Your task to perform on an android device: snooze an email in the gmail app Image 0: 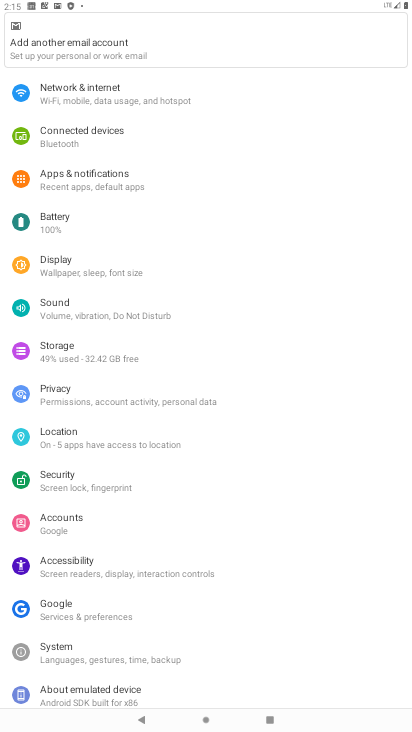
Step 0: press home button
Your task to perform on an android device: snooze an email in the gmail app Image 1: 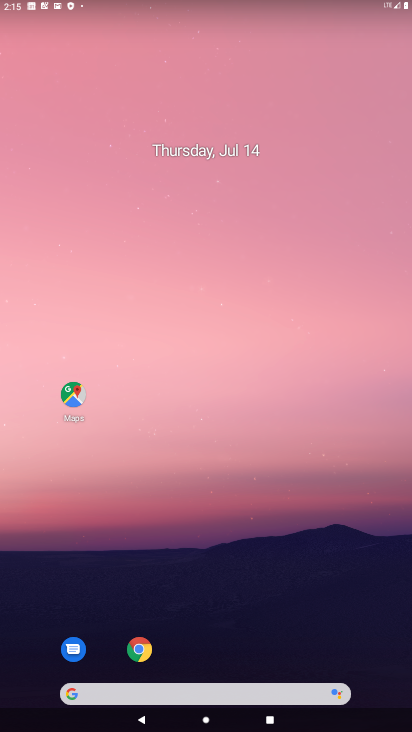
Step 1: drag from (379, 670) to (165, 17)
Your task to perform on an android device: snooze an email in the gmail app Image 2: 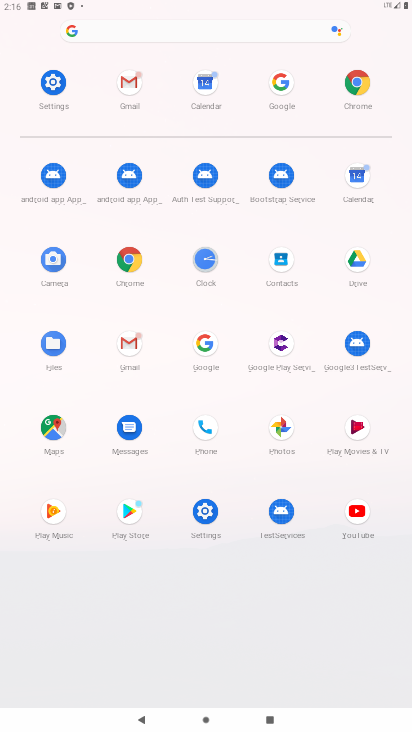
Step 2: click (136, 338)
Your task to perform on an android device: snooze an email in the gmail app Image 3: 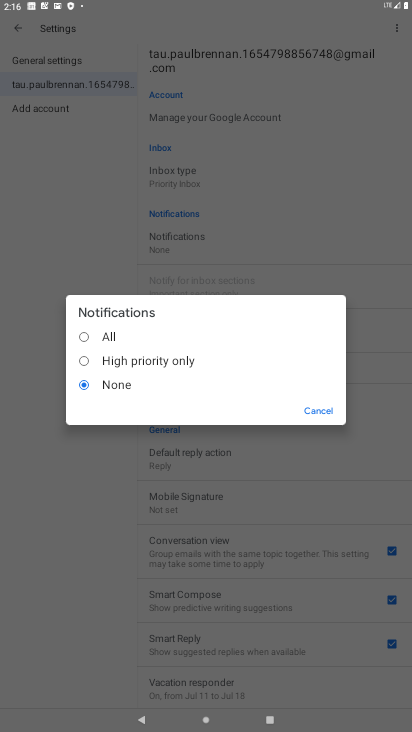
Step 3: click (304, 407)
Your task to perform on an android device: snooze an email in the gmail app Image 4: 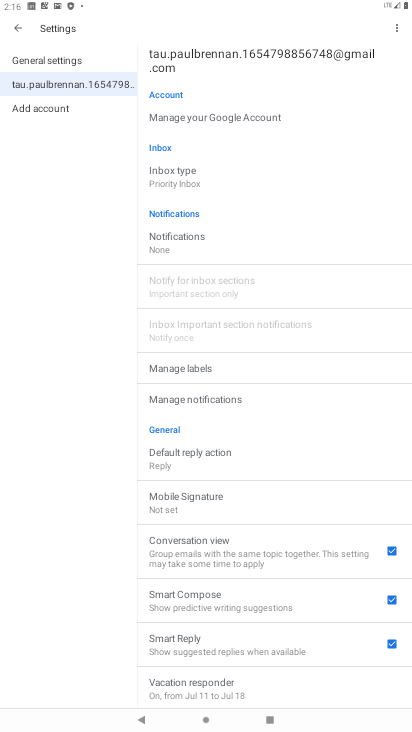
Step 4: press back button
Your task to perform on an android device: snooze an email in the gmail app Image 5: 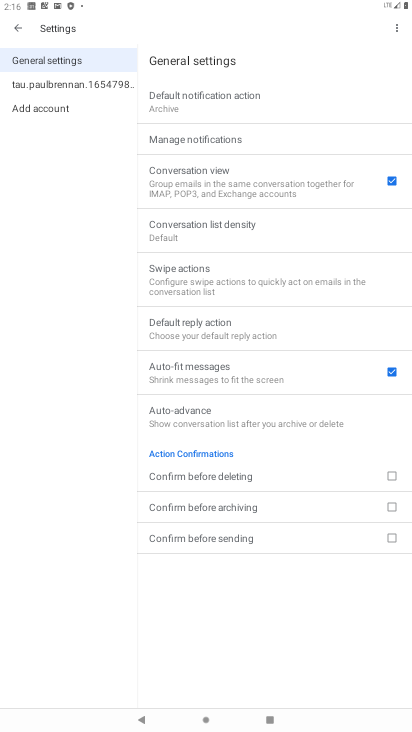
Step 5: click (15, 24)
Your task to perform on an android device: snooze an email in the gmail app Image 6: 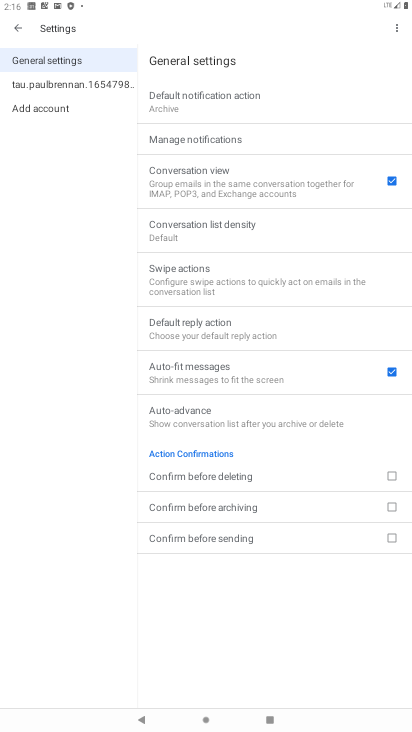
Step 6: click (13, 19)
Your task to perform on an android device: snooze an email in the gmail app Image 7: 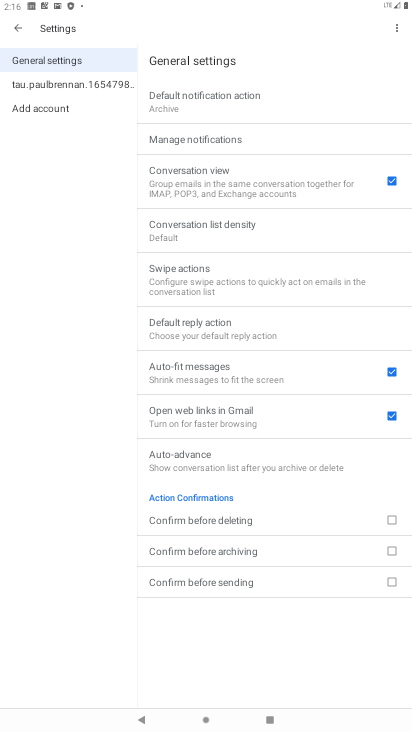
Step 7: press back button
Your task to perform on an android device: snooze an email in the gmail app Image 8: 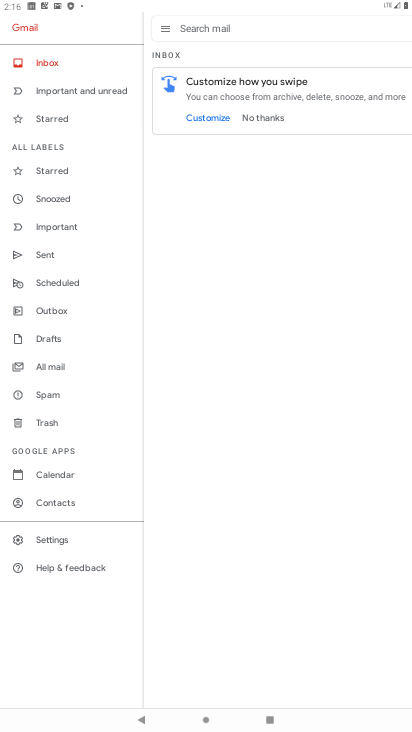
Step 8: click (104, 55)
Your task to perform on an android device: snooze an email in the gmail app Image 9: 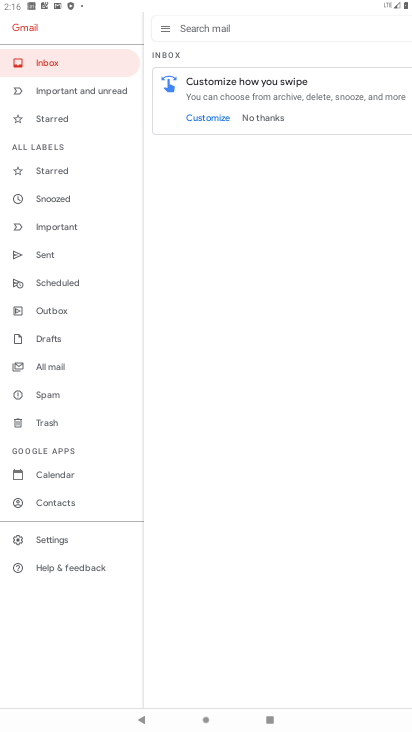
Step 9: task complete